Your task to perform on an android device: change notifications settings Image 0: 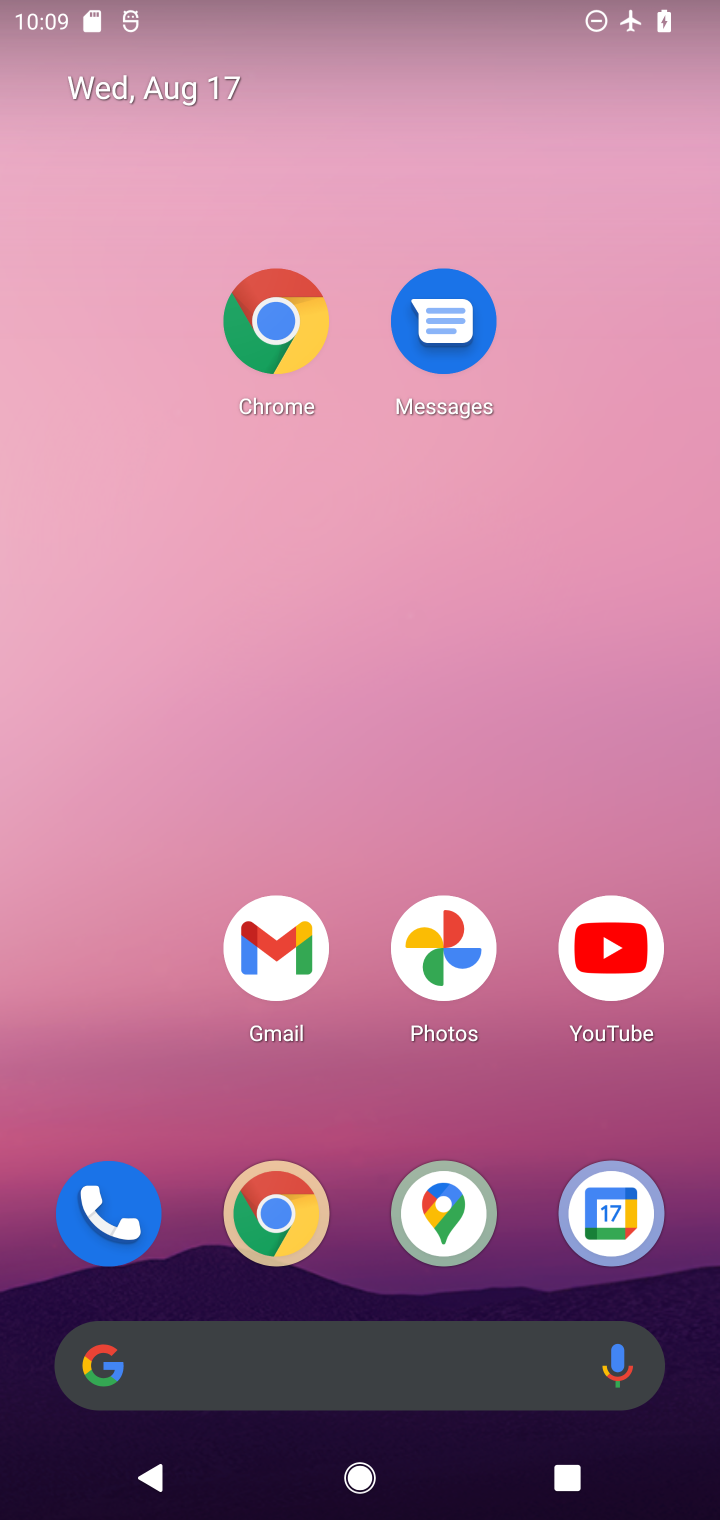
Step 0: drag from (385, 1273) to (388, 97)
Your task to perform on an android device: change notifications settings Image 1: 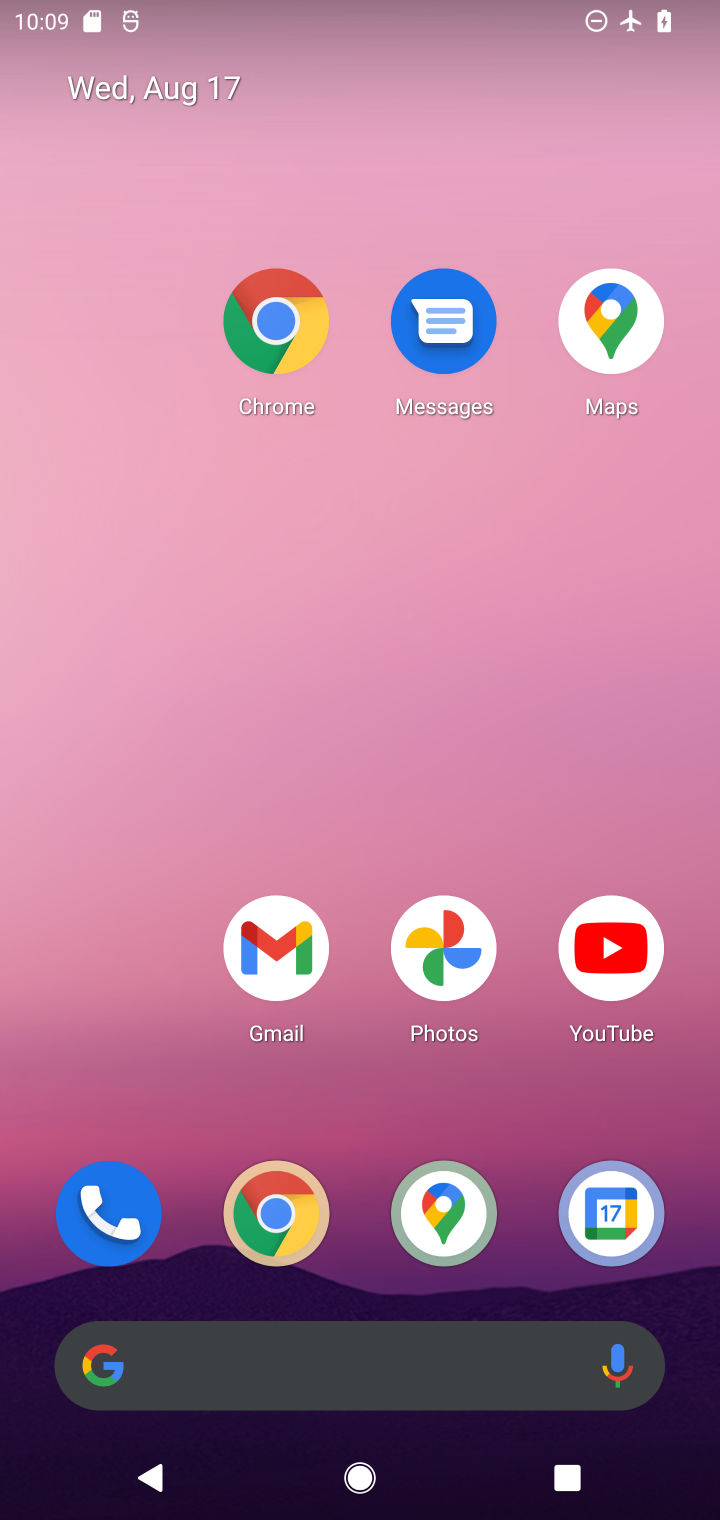
Step 1: drag from (358, 1288) to (363, 34)
Your task to perform on an android device: change notifications settings Image 2: 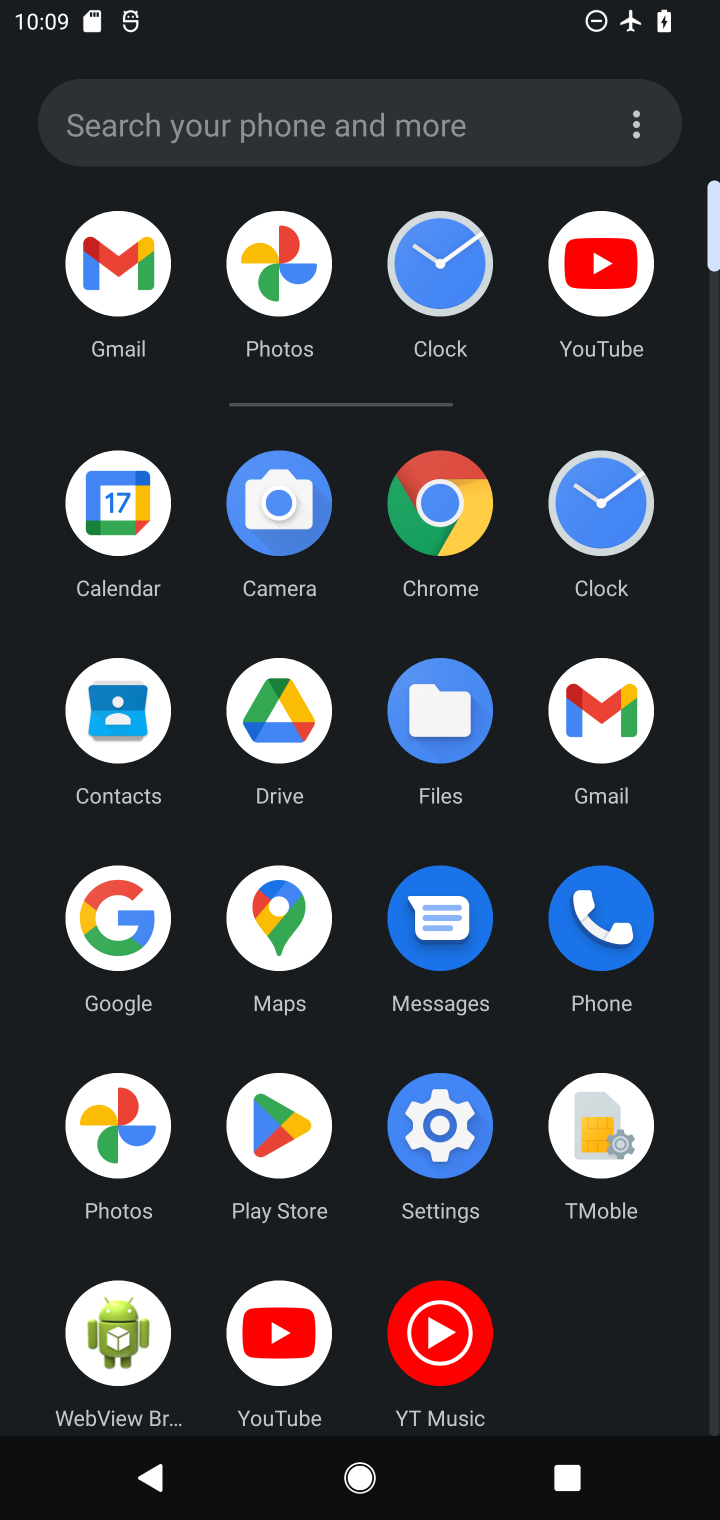
Step 2: click (435, 1210)
Your task to perform on an android device: change notifications settings Image 3: 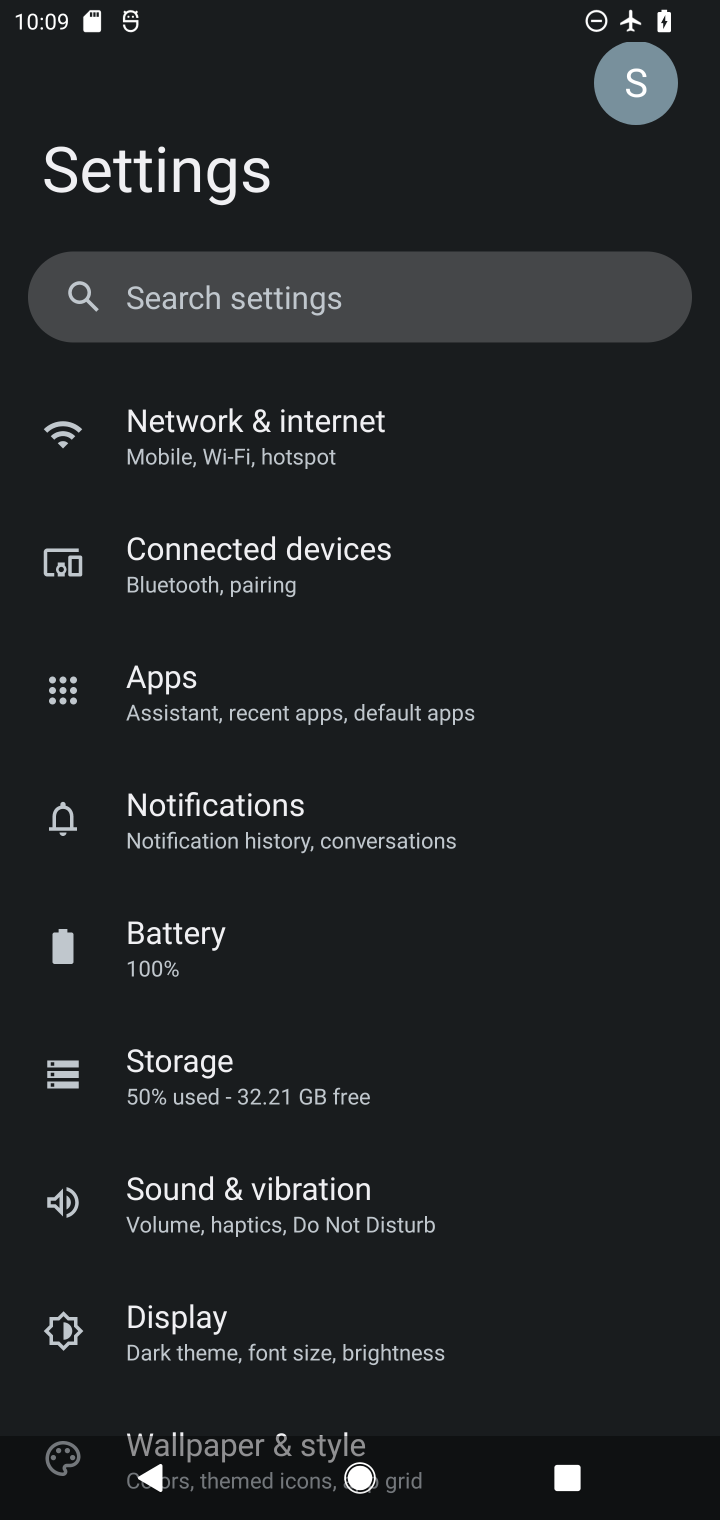
Step 3: click (250, 815)
Your task to perform on an android device: change notifications settings Image 4: 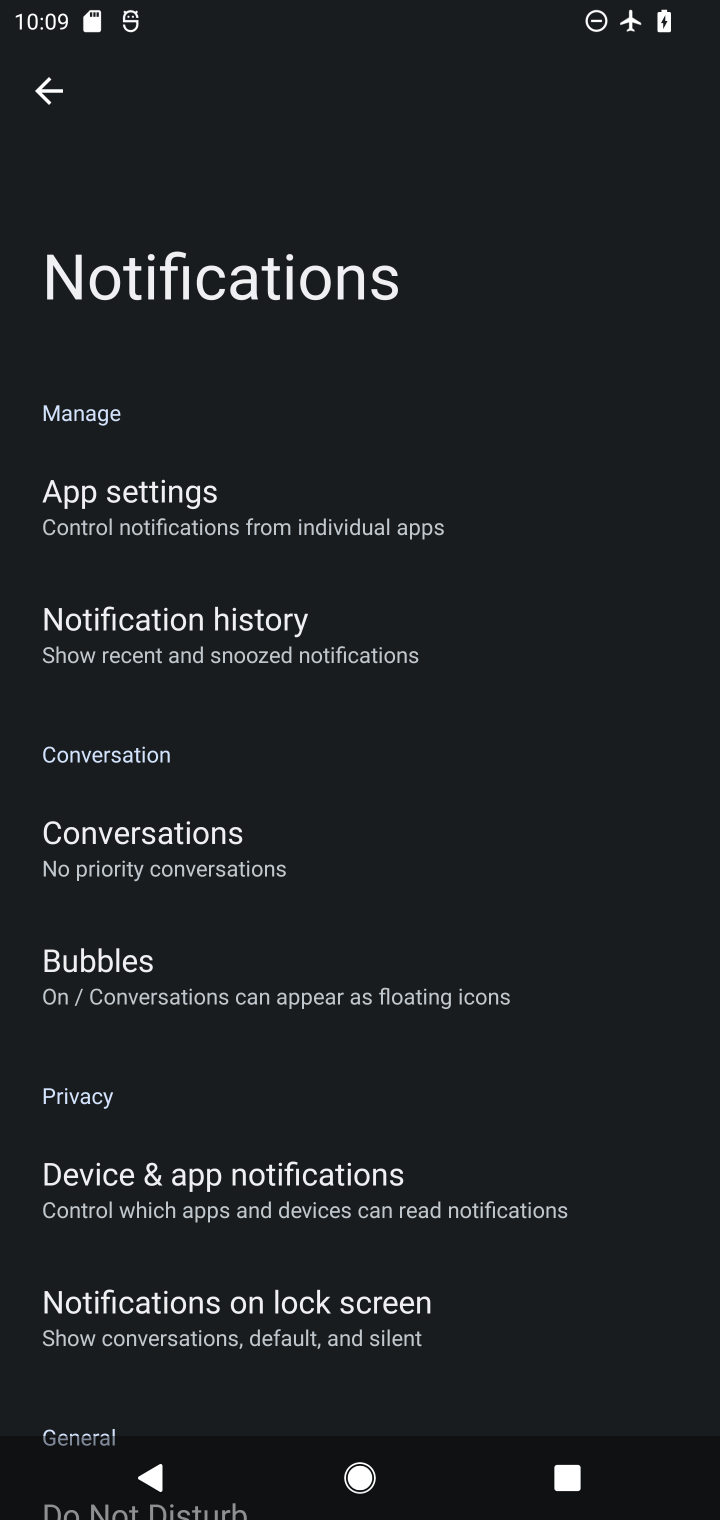
Step 4: task complete